Your task to perform on an android device: What is the news today? Image 0: 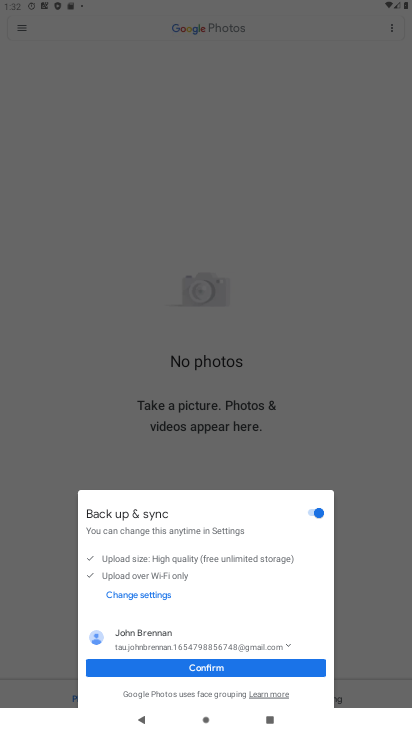
Step 0: press home button
Your task to perform on an android device: What is the news today? Image 1: 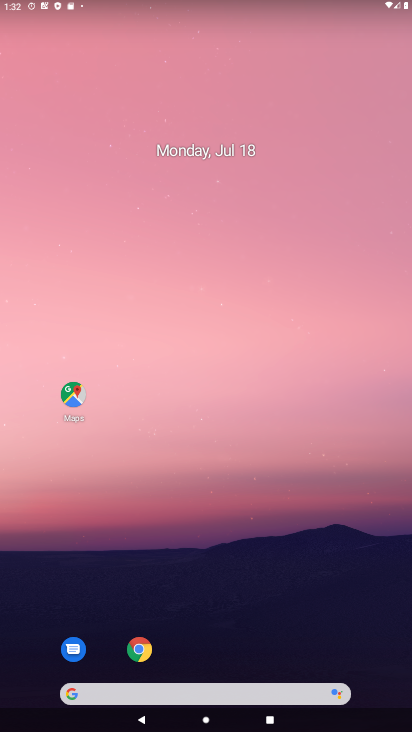
Step 1: click (215, 694)
Your task to perform on an android device: What is the news today? Image 2: 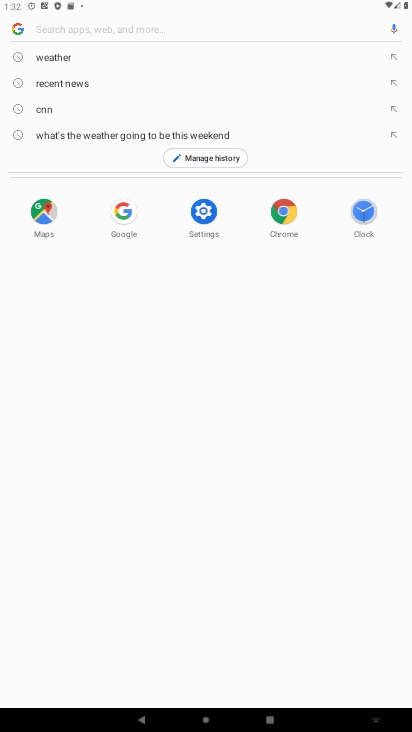
Step 2: type "news today?"
Your task to perform on an android device: What is the news today? Image 3: 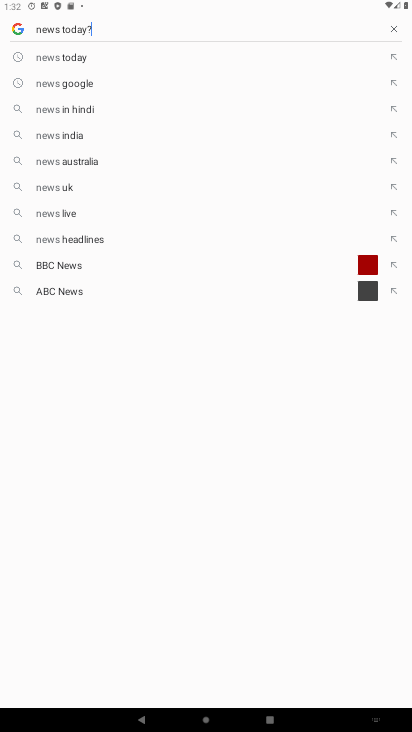
Step 3: type ""
Your task to perform on an android device: What is the news today? Image 4: 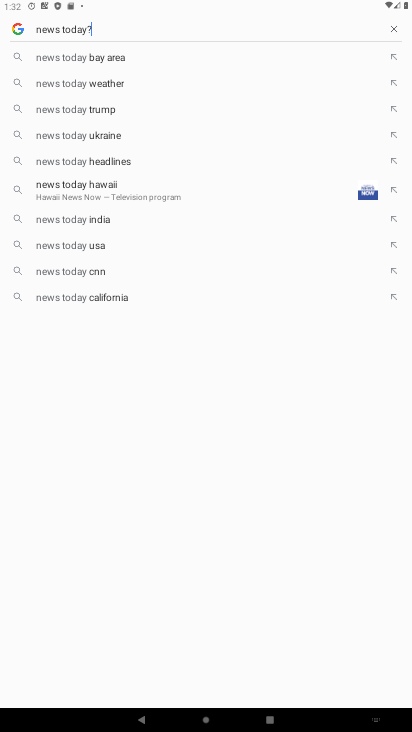
Step 4: type ""
Your task to perform on an android device: What is the news today? Image 5: 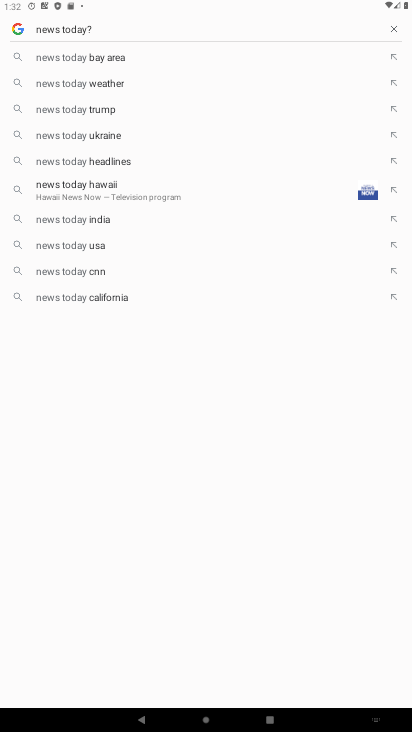
Step 5: click (93, 23)
Your task to perform on an android device: What is the news today? Image 6: 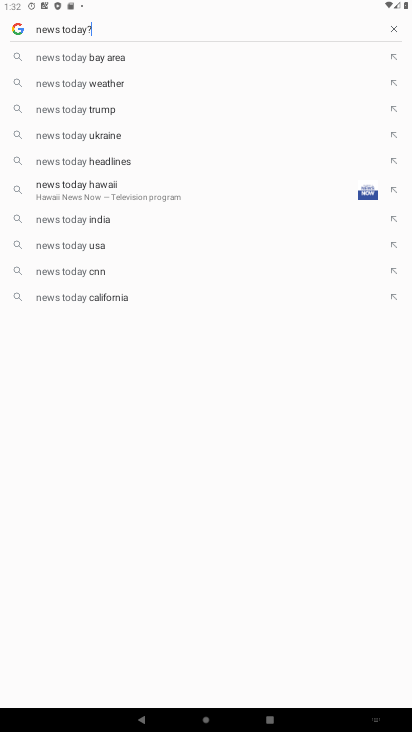
Step 6: task complete